Your task to perform on an android device: toggle pop-ups in chrome Image 0: 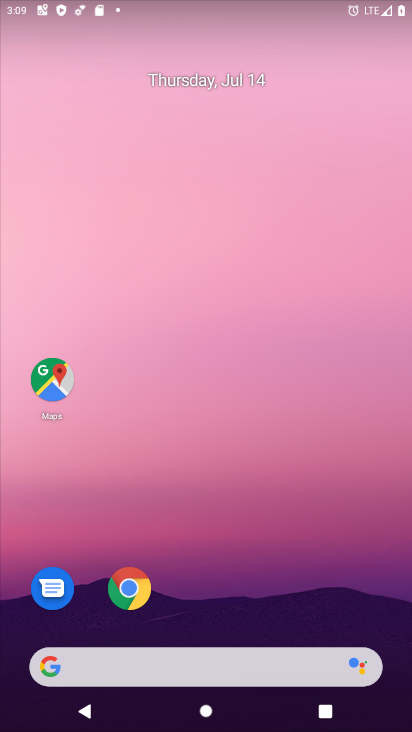
Step 0: drag from (211, 553) to (287, 223)
Your task to perform on an android device: toggle pop-ups in chrome Image 1: 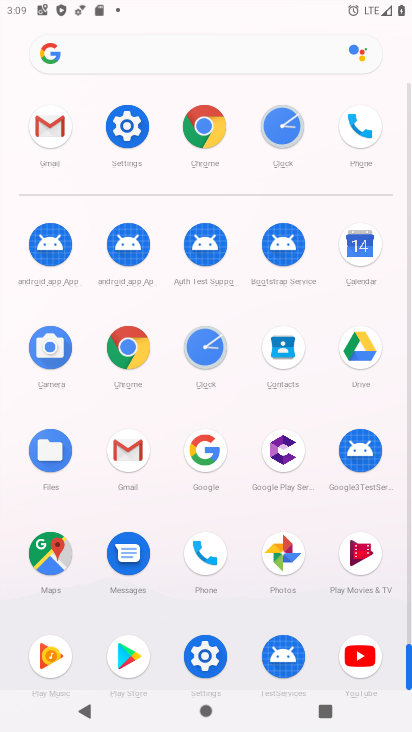
Step 1: click (205, 111)
Your task to perform on an android device: toggle pop-ups in chrome Image 2: 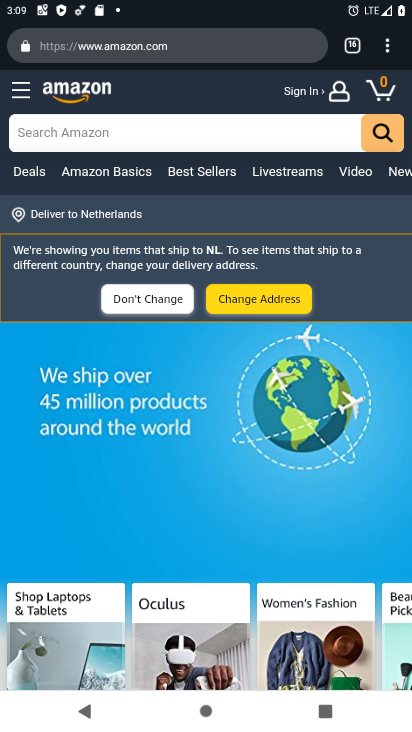
Step 2: click (376, 43)
Your task to perform on an android device: toggle pop-ups in chrome Image 3: 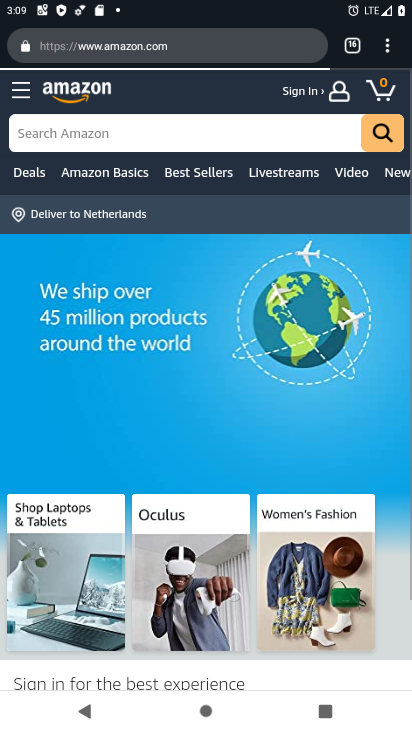
Step 3: click (382, 38)
Your task to perform on an android device: toggle pop-ups in chrome Image 4: 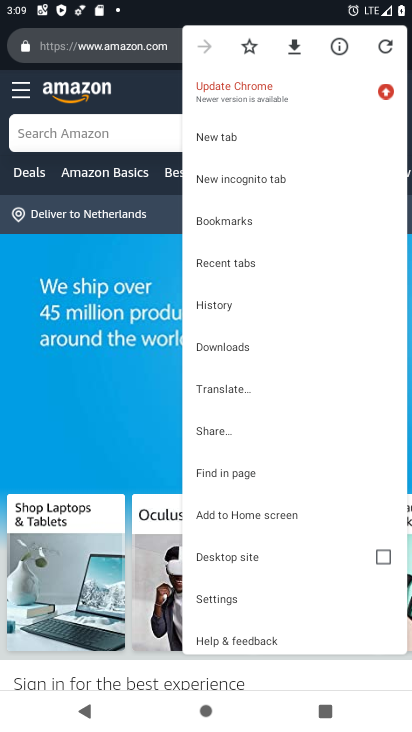
Step 4: click (263, 593)
Your task to perform on an android device: toggle pop-ups in chrome Image 5: 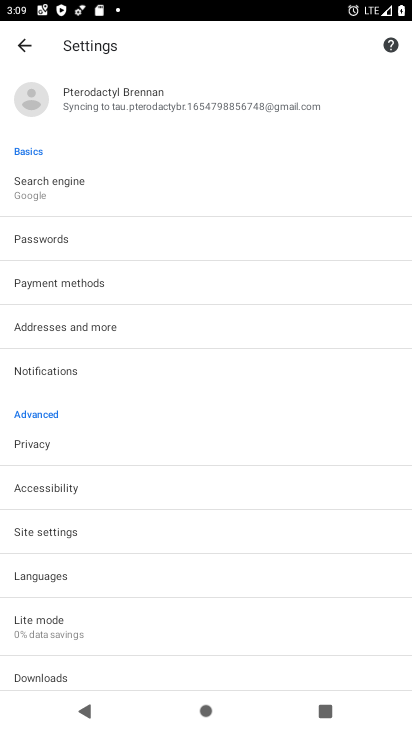
Step 5: drag from (112, 583) to (238, 174)
Your task to perform on an android device: toggle pop-ups in chrome Image 6: 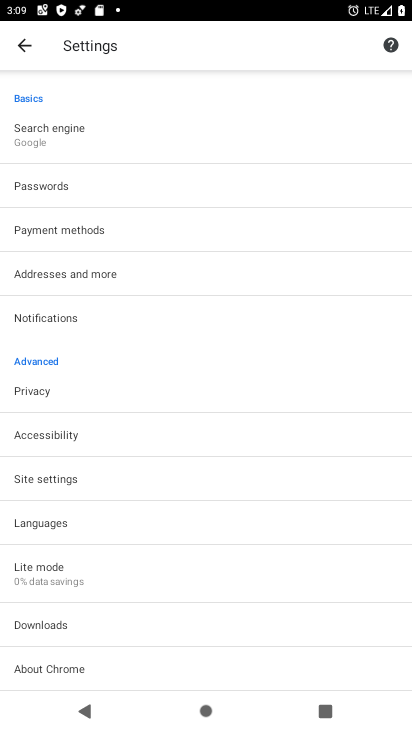
Step 6: click (81, 468)
Your task to perform on an android device: toggle pop-ups in chrome Image 7: 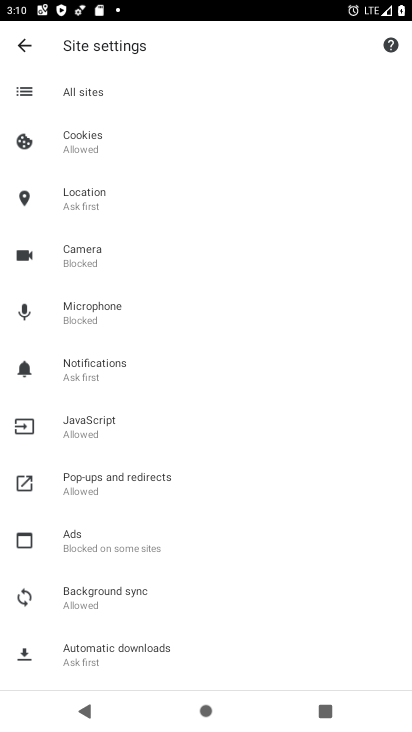
Step 7: click (110, 492)
Your task to perform on an android device: toggle pop-ups in chrome Image 8: 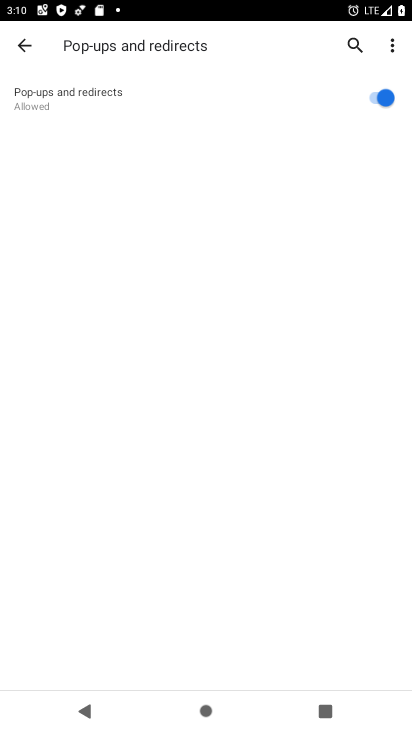
Step 8: click (389, 94)
Your task to perform on an android device: toggle pop-ups in chrome Image 9: 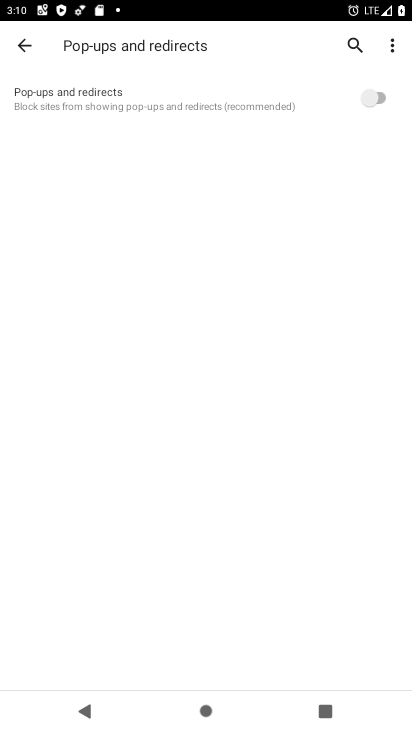
Step 9: task complete